Your task to perform on an android device: empty trash in the gmail app Image 0: 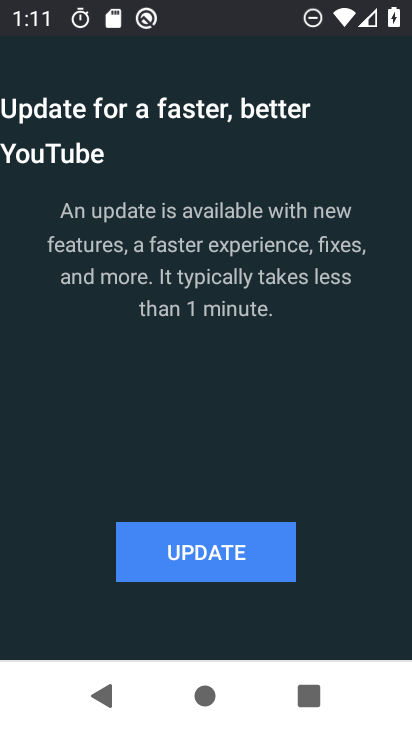
Step 0: press back button
Your task to perform on an android device: empty trash in the gmail app Image 1: 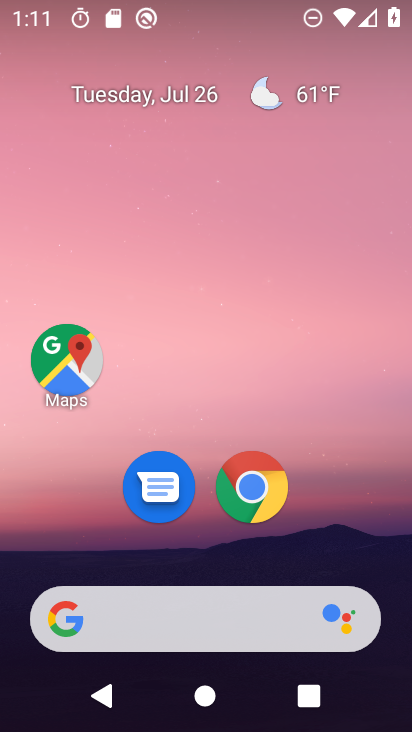
Step 1: drag from (35, 420) to (117, 9)
Your task to perform on an android device: empty trash in the gmail app Image 2: 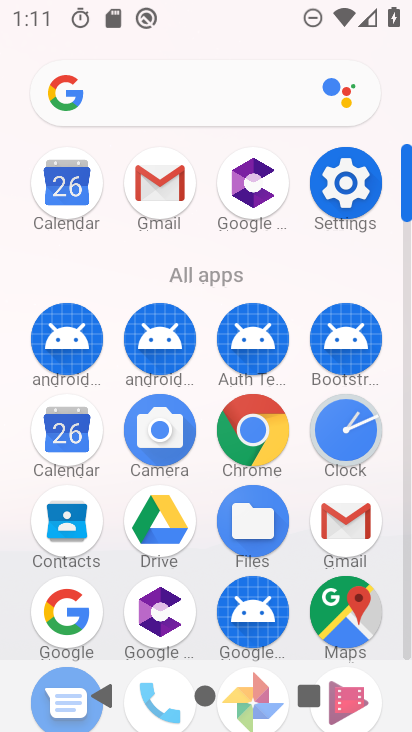
Step 2: click (160, 192)
Your task to perform on an android device: empty trash in the gmail app Image 3: 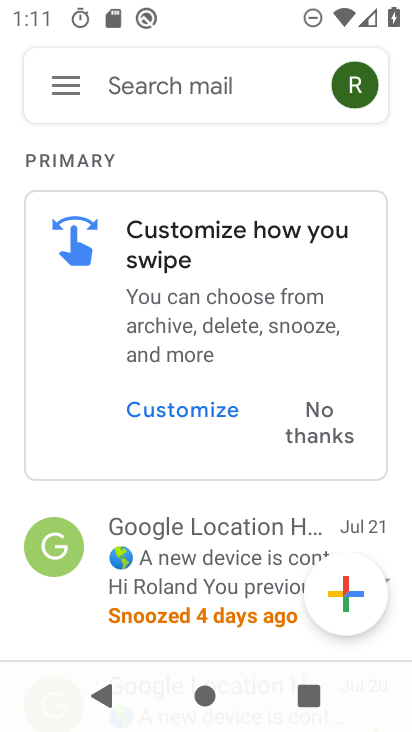
Step 3: click (63, 80)
Your task to perform on an android device: empty trash in the gmail app Image 4: 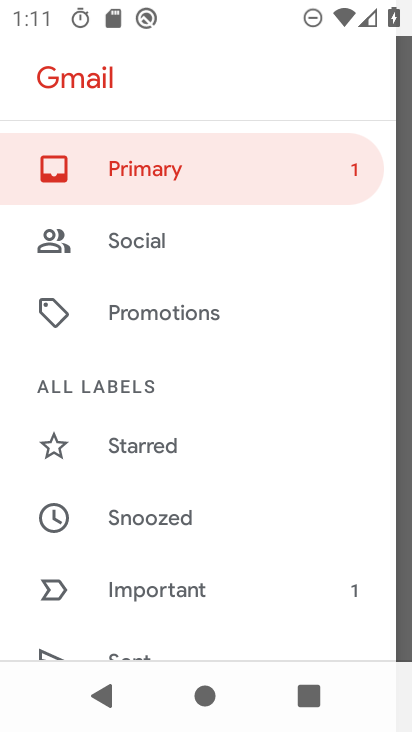
Step 4: drag from (230, 602) to (203, 54)
Your task to perform on an android device: empty trash in the gmail app Image 5: 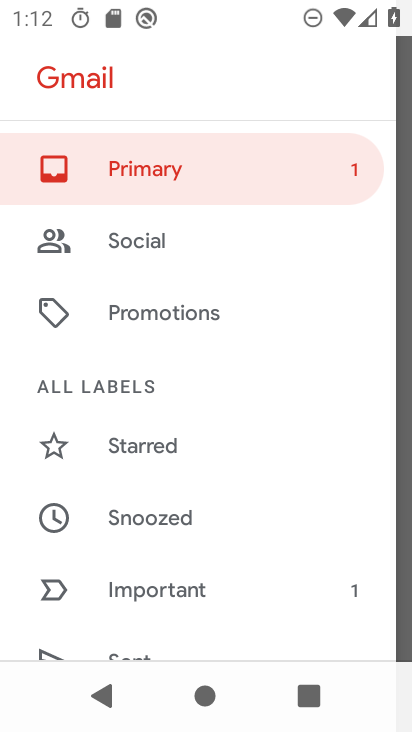
Step 5: drag from (174, 635) to (225, 181)
Your task to perform on an android device: empty trash in the gmail app Image 6: 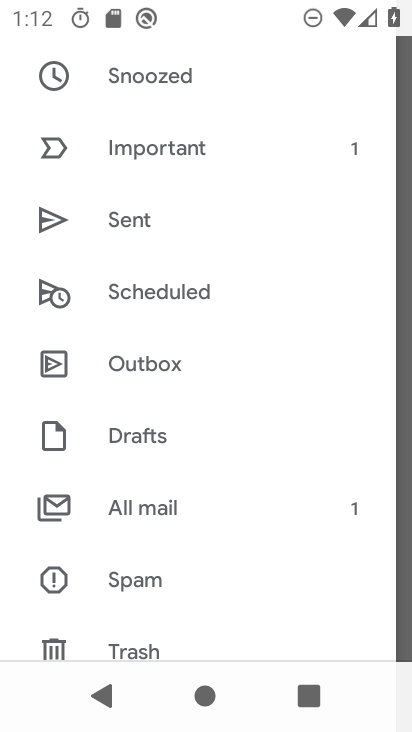
Step 6: click (148, 648)
Your task to perform on an android device: empty trash in the gmail app Image 7: 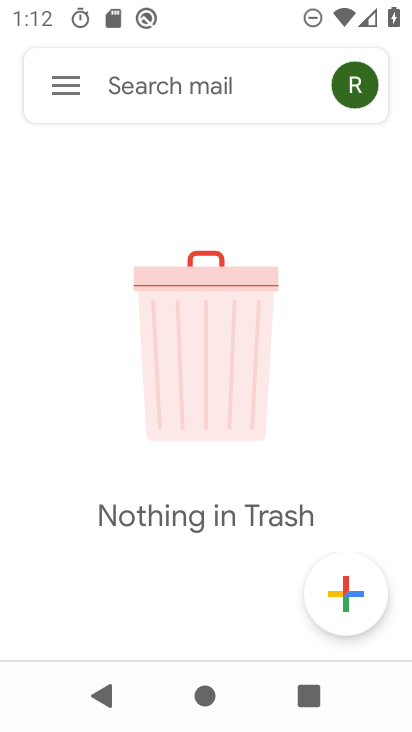
Step 7: task complete